Your task to perform on an android device: turn off wifi Image 0: 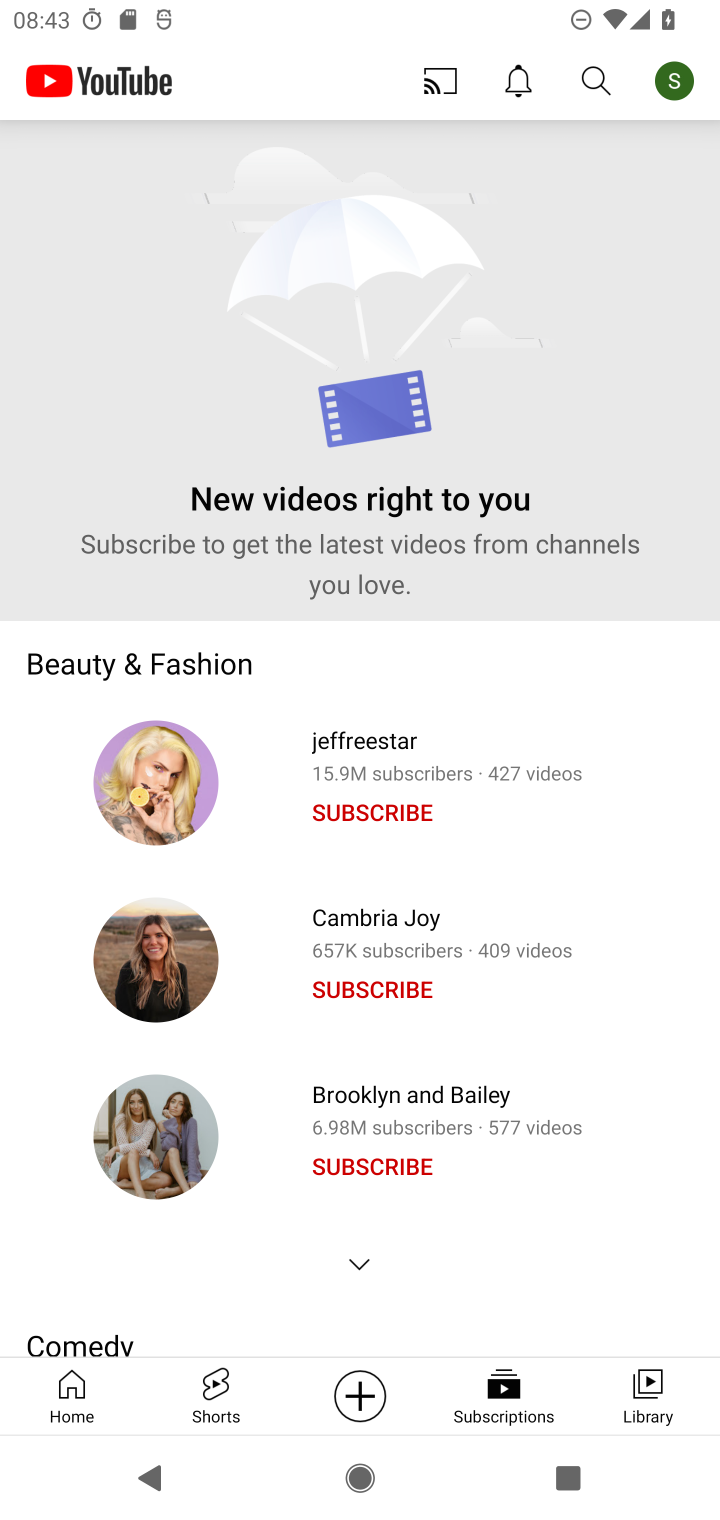
Step 0: press home button
Your task to perform on an android device: turn off wifi Image 1: 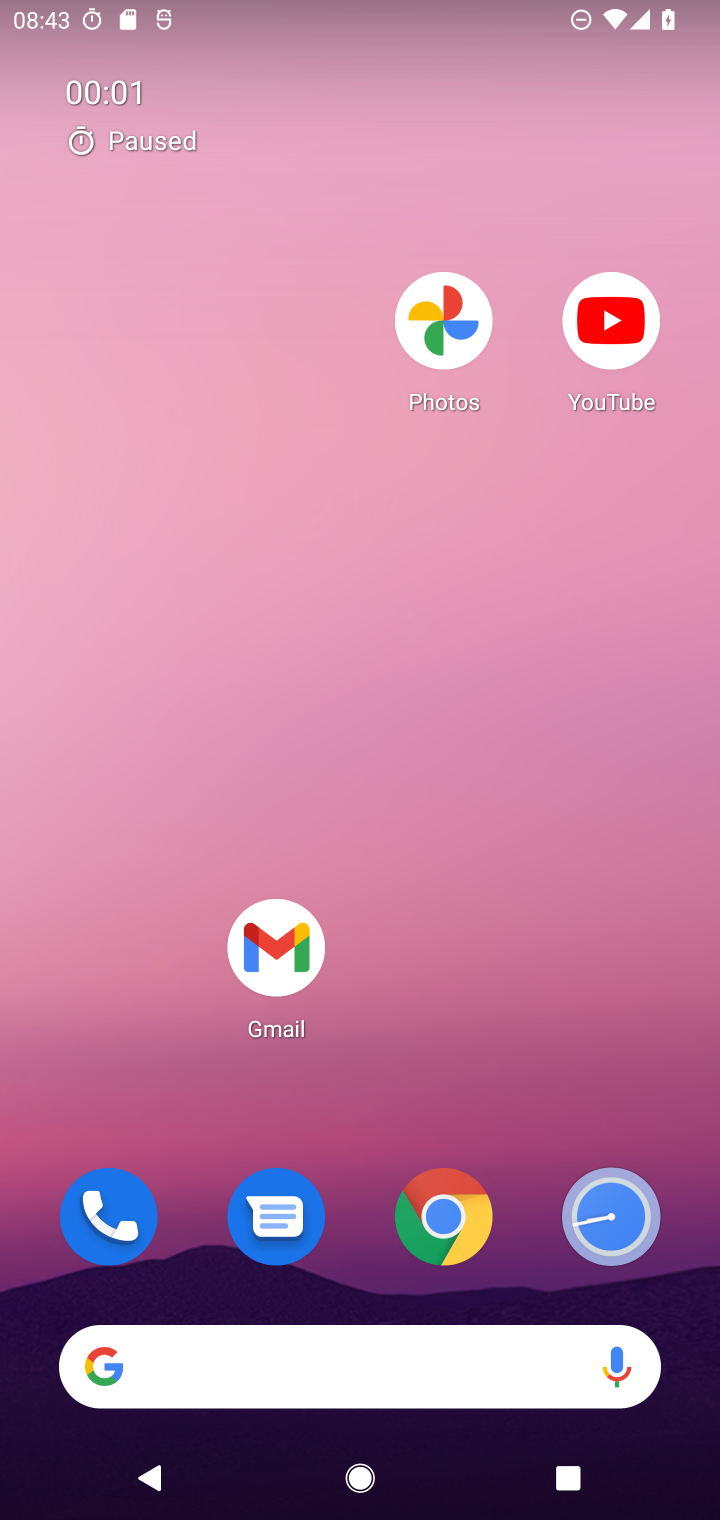
Step 1: drag from (573, 919) to (513, 151)
Your task to perform on an android device: turn off wifi Image 2: 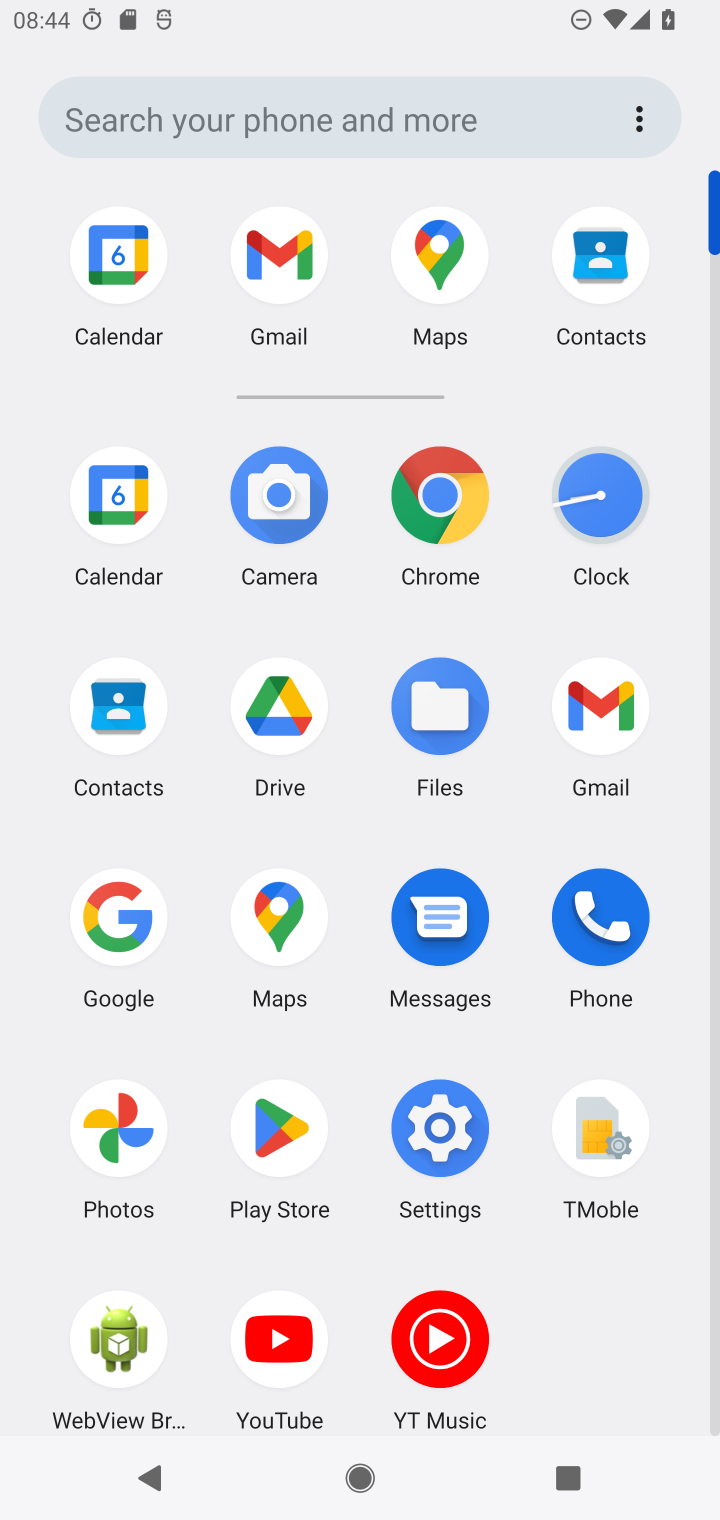
Step 2: click (430, 1145)
Your task to perform on an android device: turn off wifi Image 3: 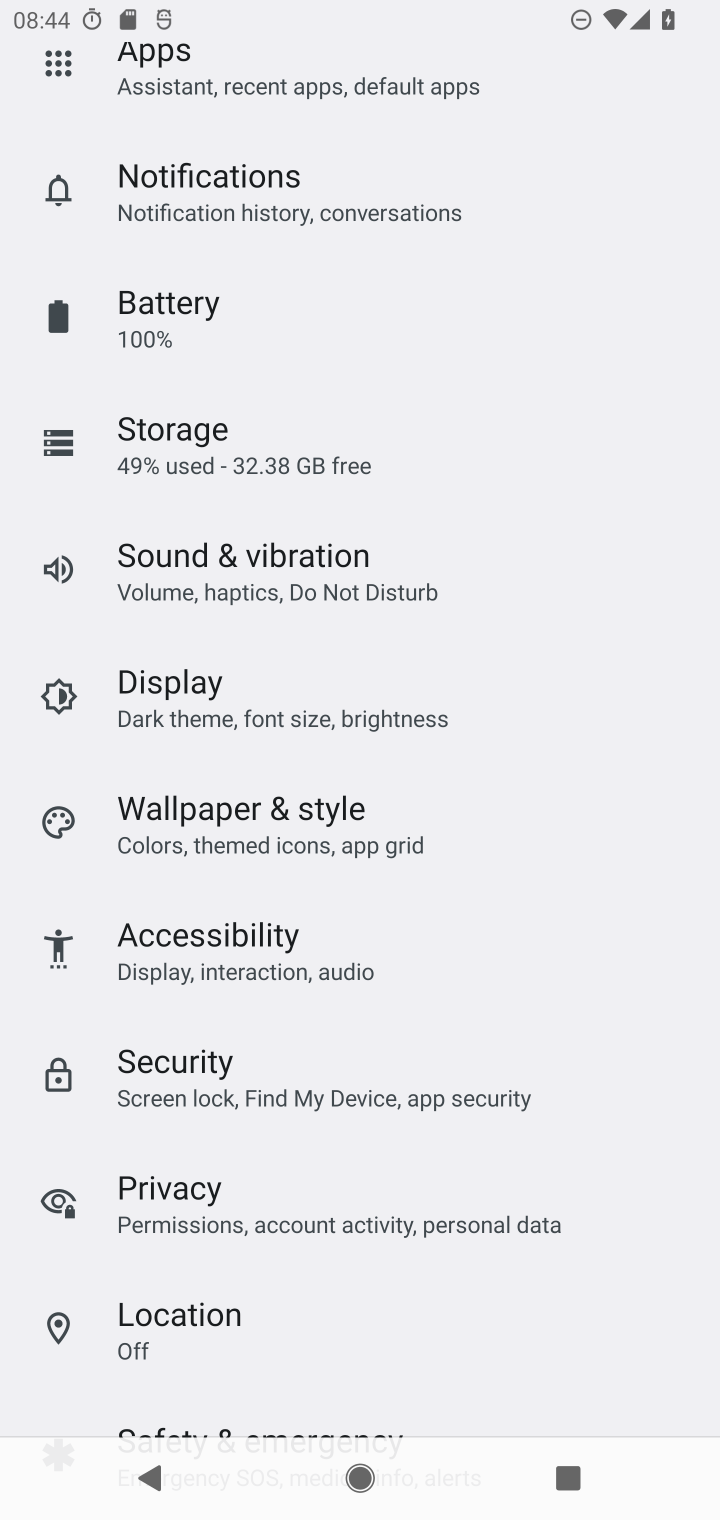
Step 3: drag from (374, 298) to (435, 1267)
Your task to perform on an android device: turn off wifi Image 4: 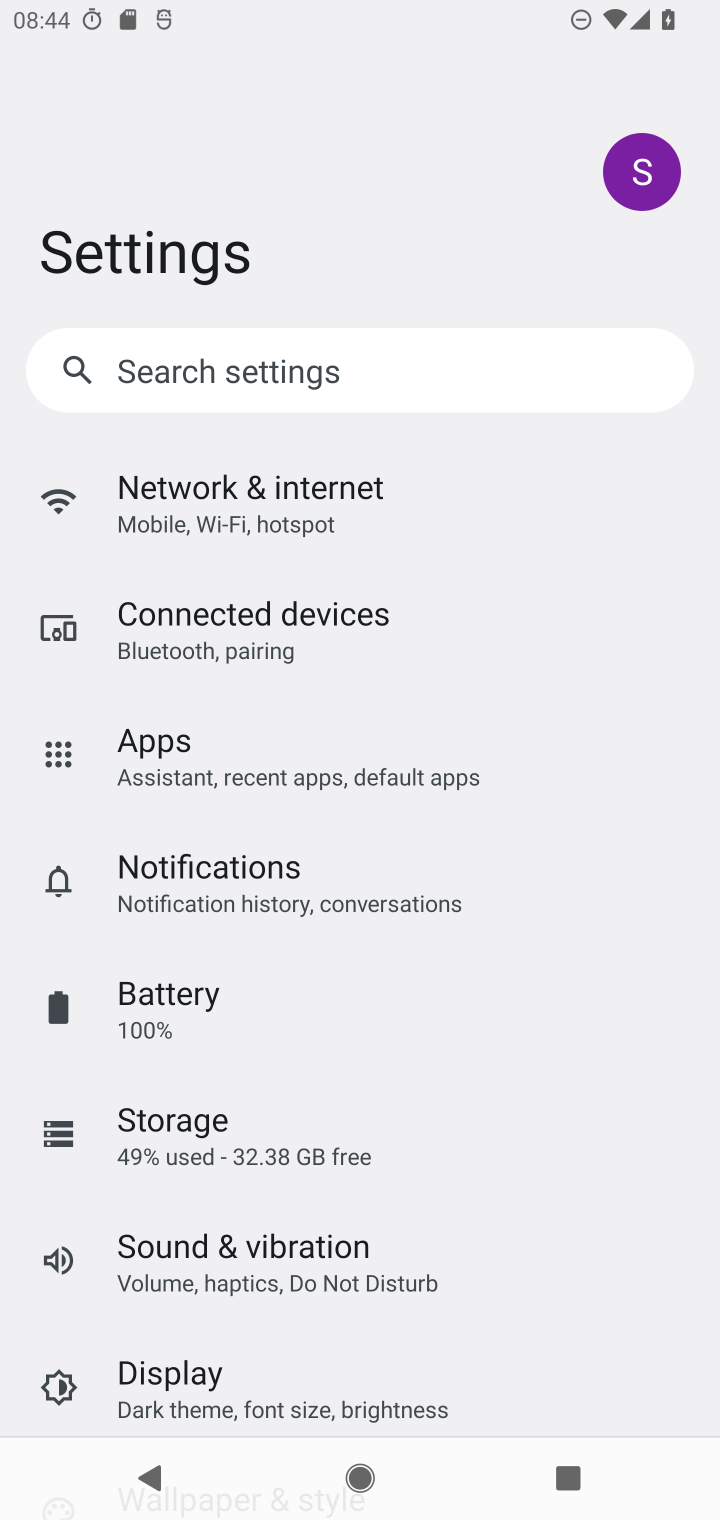
Step 4: click (224, 479)
Your task to perform on an android device: turn off wifi Image 5: 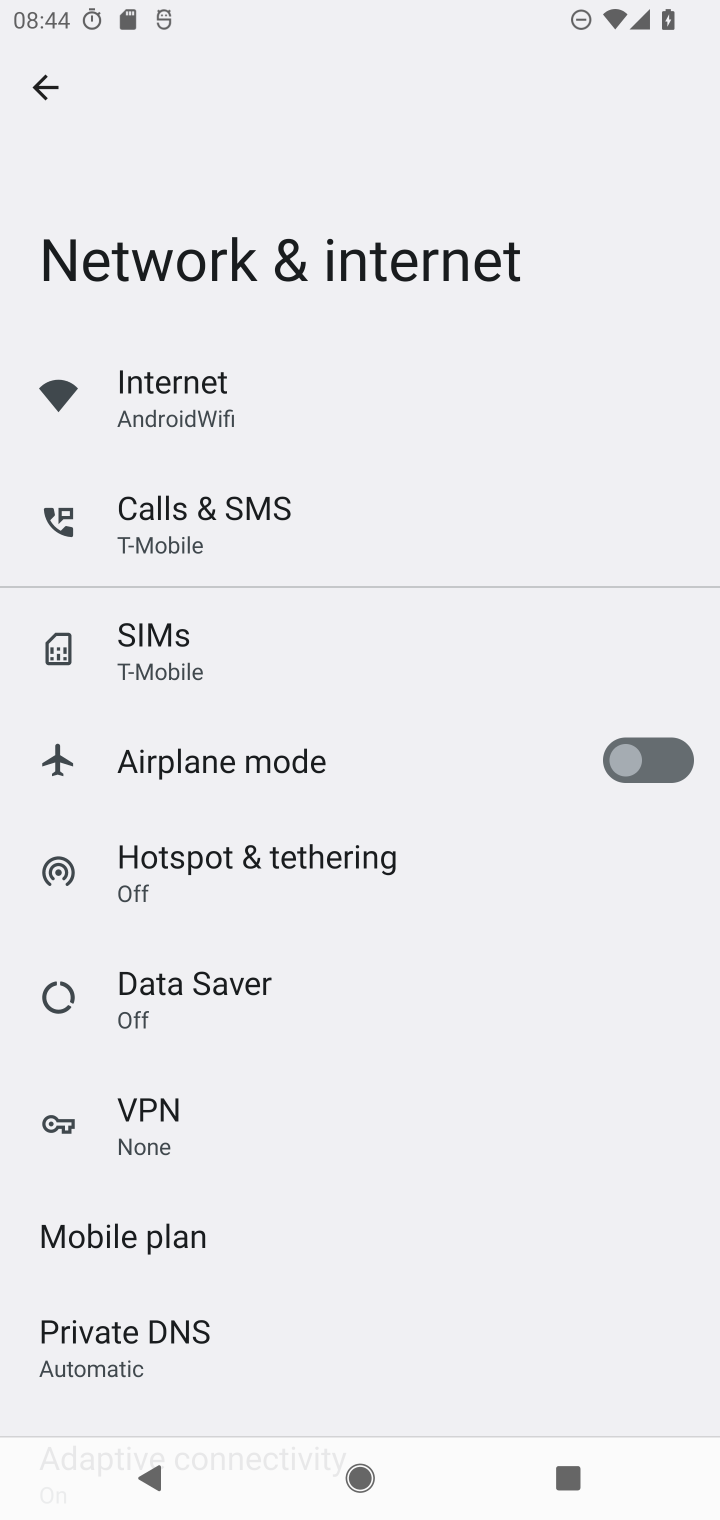
Step 5: click (193, 421)
Your task to perform on an android device: turn off wifi Image 6: 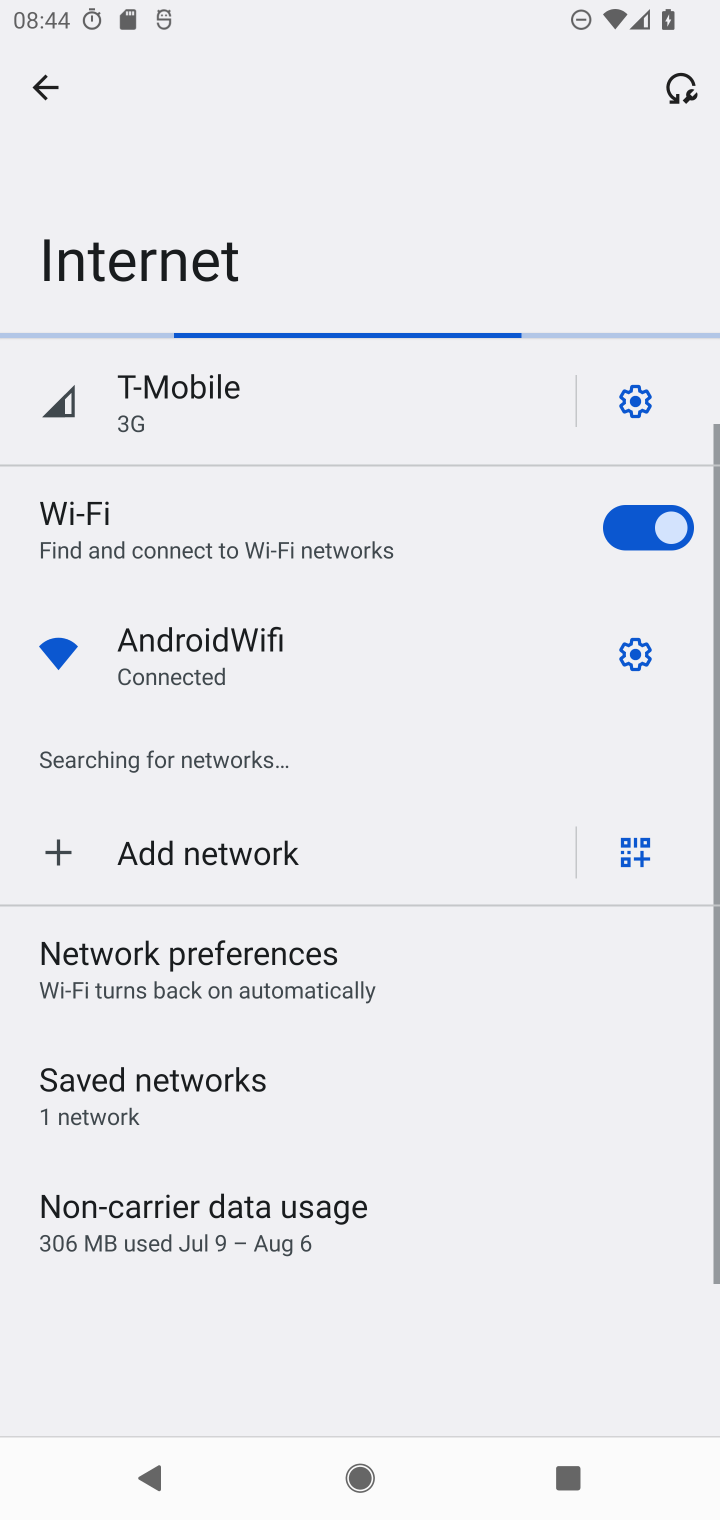
Step 6: click (631, 511)
Your task to perform on an android device: turn off wifi Image 7: 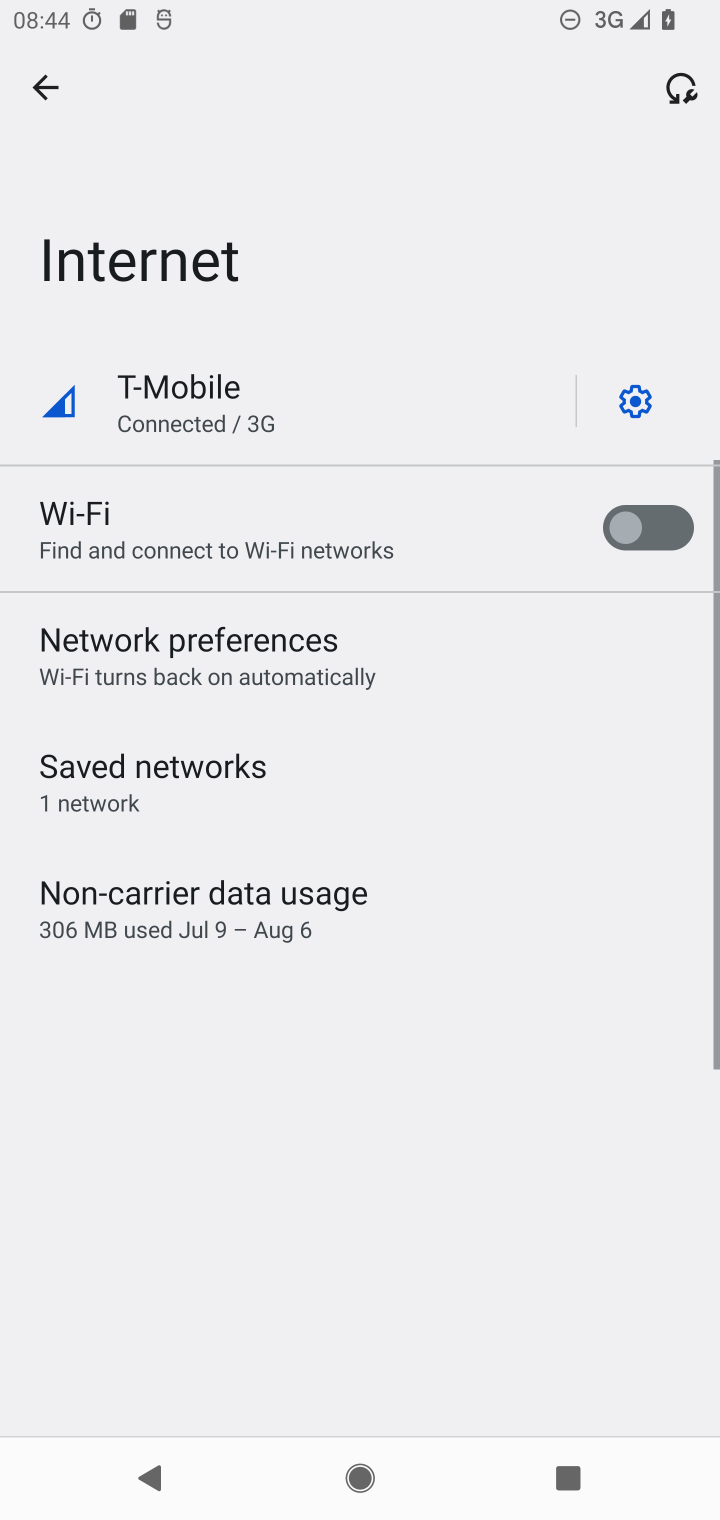
Step 7: task complete